Your task to perform on an android device: Do I have any events tomorrow? Image 0: 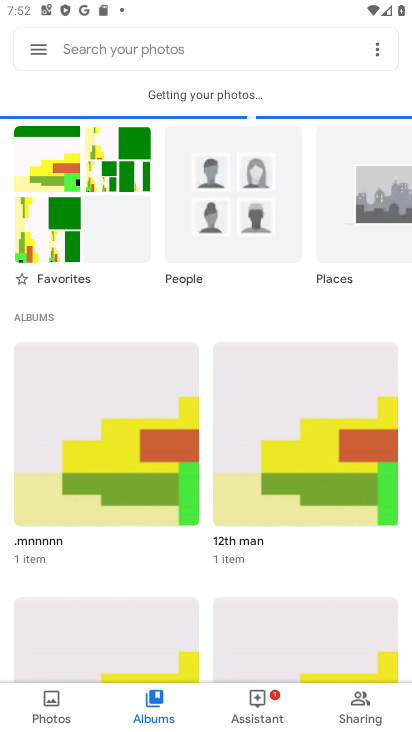
Step 0: press home button
Your task to perform on an android device: Do I have any events tomorrow? Image 1: 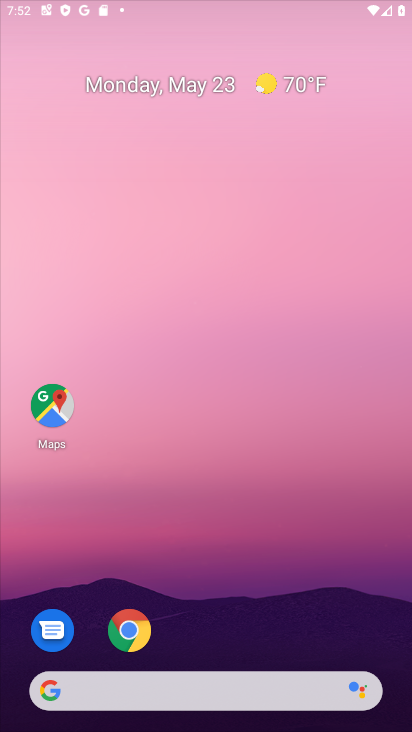
Step 1: drag from (265, 556) to (264, 167)
Your task to perform on an android device: Do I have any events tomorrow? Image 2: 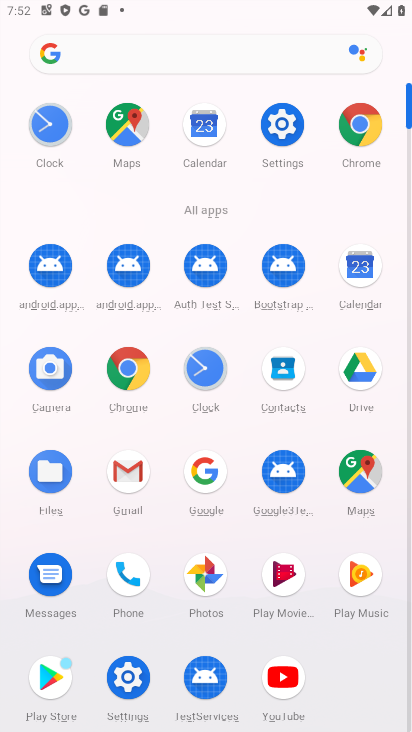
Step 2: click (376, 271)
Your task to perform on an android device: Do I have any events tomorrow? Image 3: 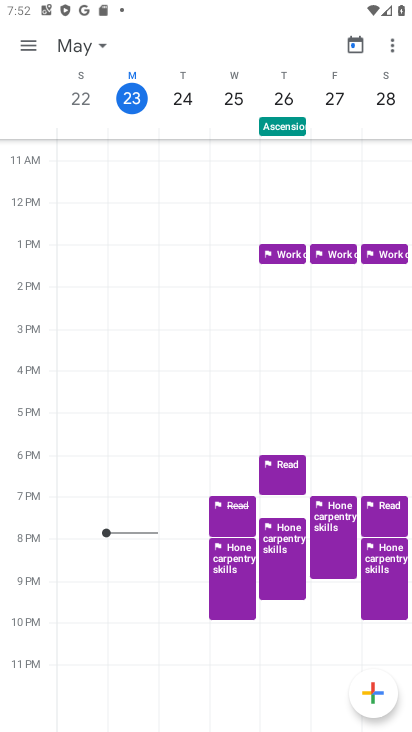
Step 3: click (185, 102)
Your task to perform on an android device: Do I have any events tomorrow? Image 4: 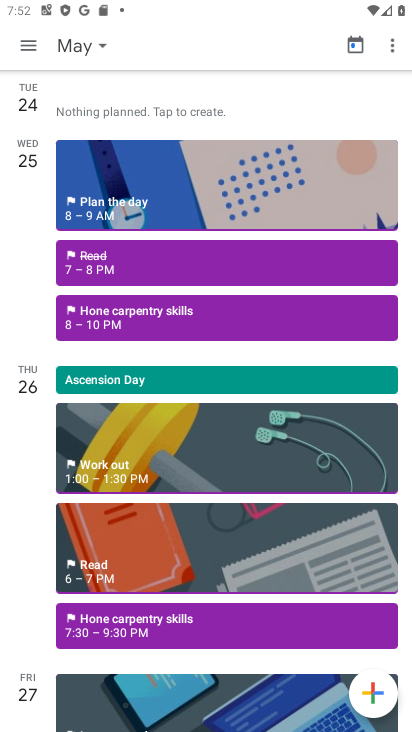
Step 4: task complete